Your task to perform on an android device: Search for seafood restaurants on Google Maps Image 0: 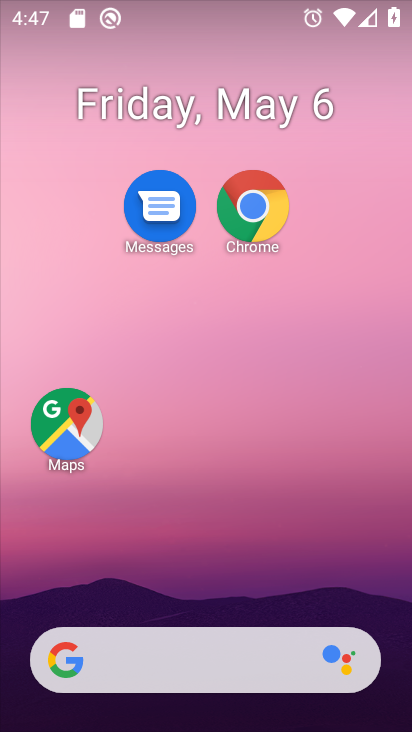
Step 0: click (69, 422)
Your task to perform on an android device: Search for seafood restaurants on Google Maps Image 1: 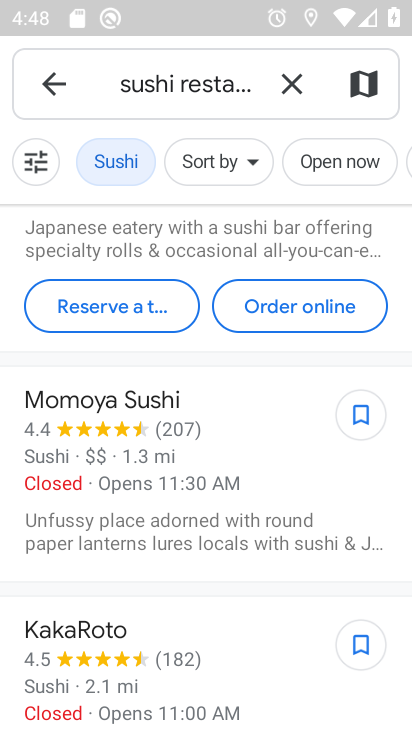
Step 1: click (291, 92)
Your task to perform on an android device: Search for seafood restaurants on Google Maps Image 2: 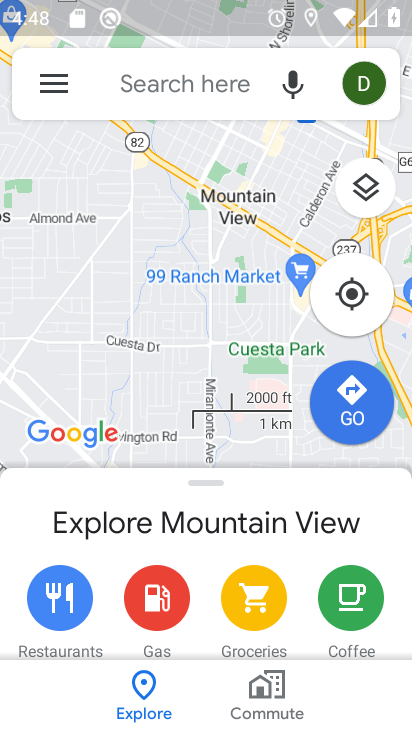
Step 2: click (177, 85)
Your task to perform on an android device: Search for seafood restaurants on Google Maps Image 3: 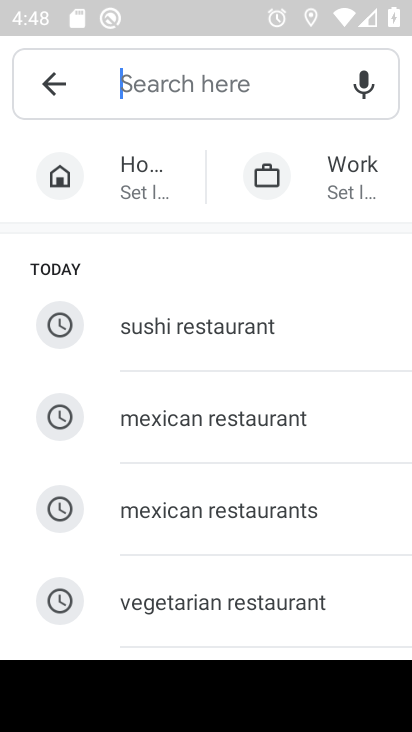
Step 3: drag from (183, 604) to (169, 376)
Your task to perform on an android device: Search for seafood restaurants on Google Maps Image 4: 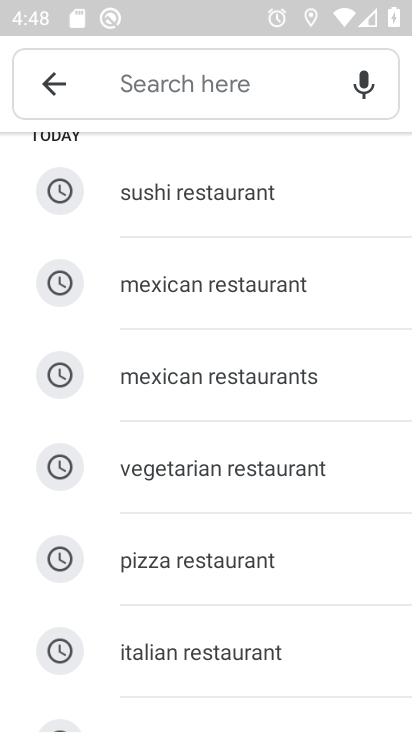
Step 4: drag from (232, 669) to (198, 336)
Your task to perform on an android device: Search for seafood restaurants on Google Maps Image 5: 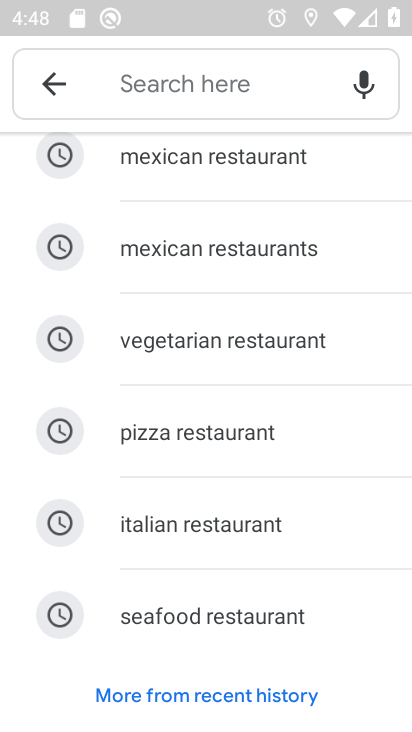
Step 5: click (191, 611)
Your task to perform on an android device: Search for seafood restaurants on Google Maps Image 6: 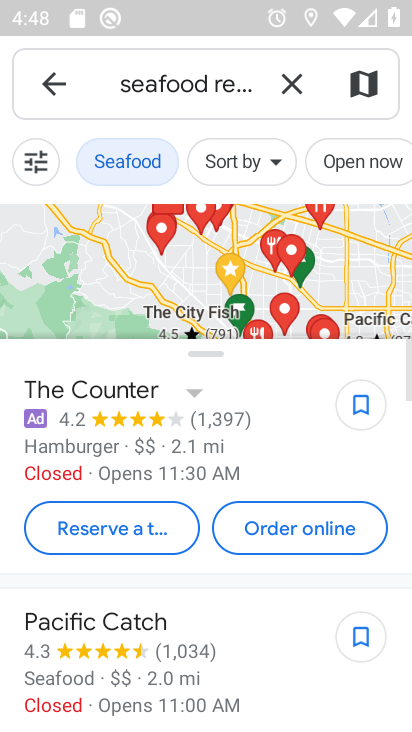
Step 6: task complete